Your task to perform on an android device: turn on data saver in the chrome app Image 0: 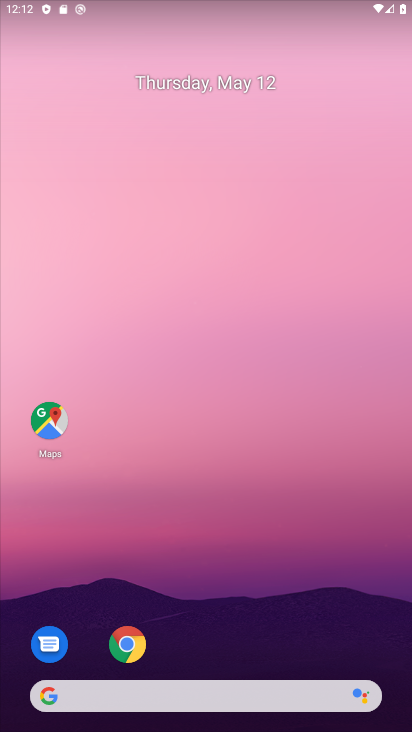
Step 0: click (131, 642)
Your task to perform on an android device: turn on data saver in the chrome app Image 1: 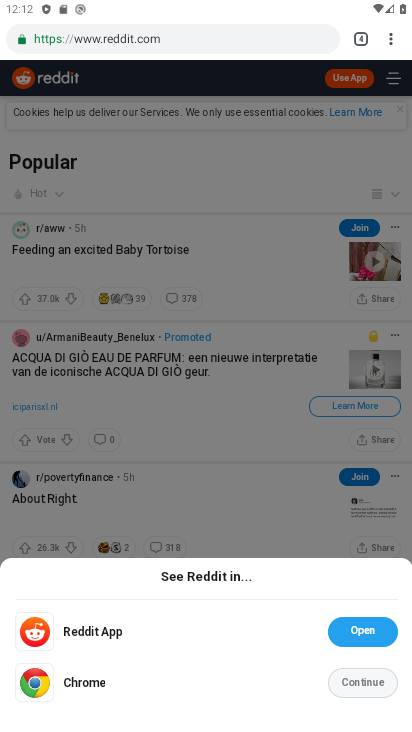
Step 1: click (382, 35)
Your task to perform on an android device: turn on data saver in the chrome app Image 2: 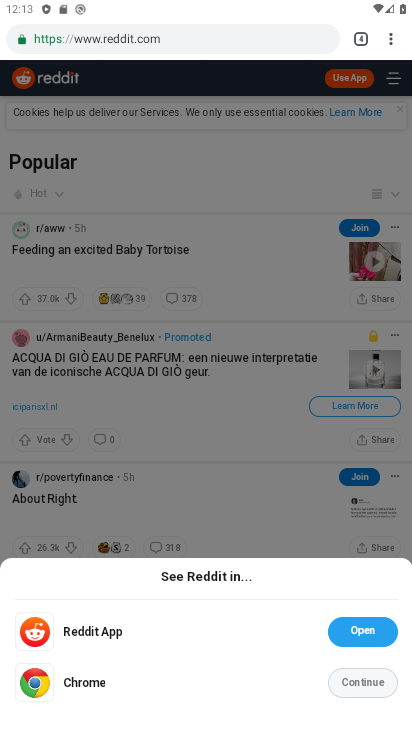
Step 2: click (386, 34)
Your task to perform on an android device: turn on data saver in the chrome app Image 3: 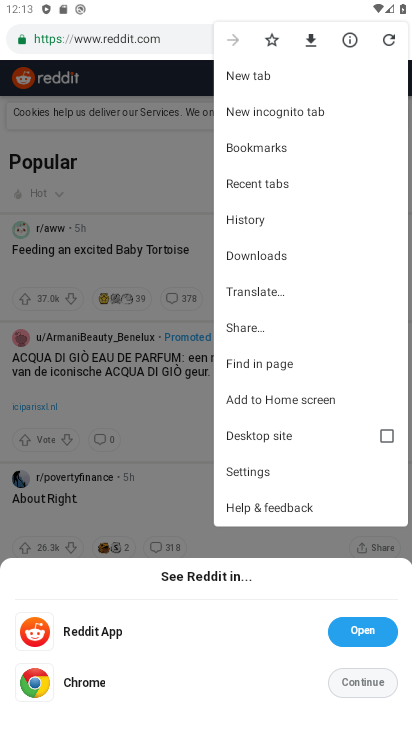
Step 3: click (260, 460)
Your task to perform on an android device: turn on data saver in the chrome app Image 4: 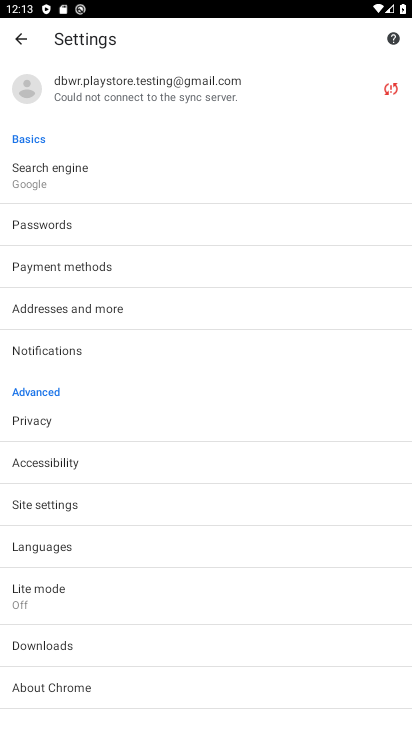
Step 4: click (81, 601)
Your task to perform on an android device: turn on data saver in the chrome app Image 5: 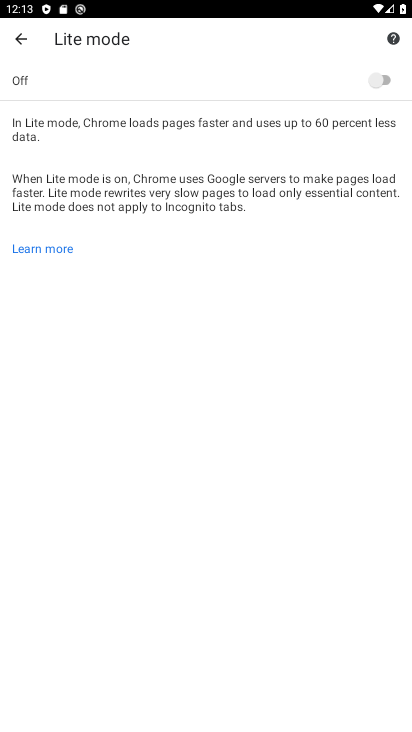
Step 5: click (379, 76)
Your task to perform on an android device: turn on data saver in the chrome app Image 6: 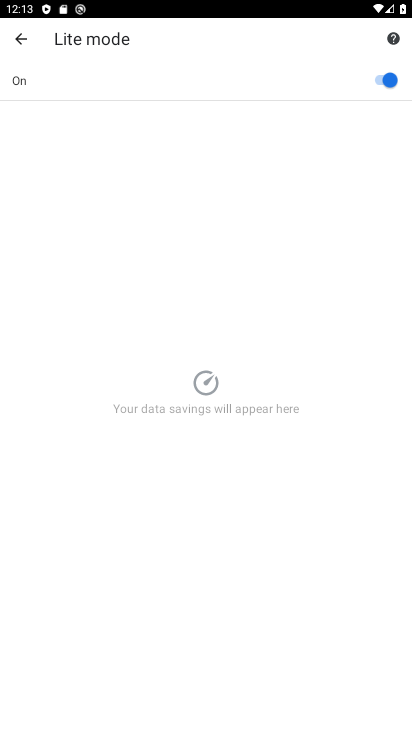
Step 6: task complete